Your task to perform on an android device: turn on notifications settings in the gmail app Image 0: 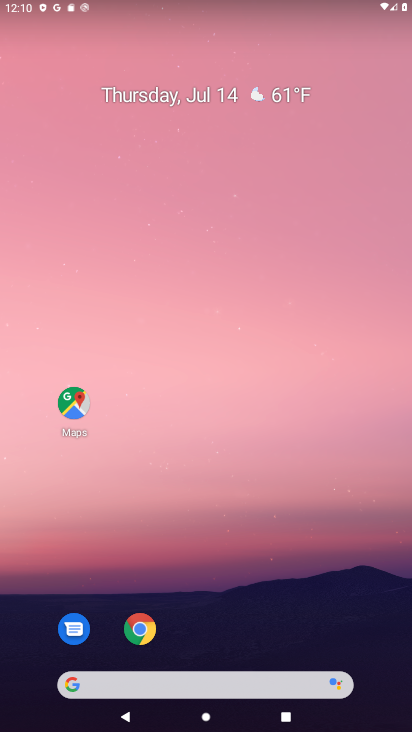
Step 0: drag from (204, 652) to (175, 160)
Your task to perform on an android device: turn on notifications settings in the gmail app Image 1: 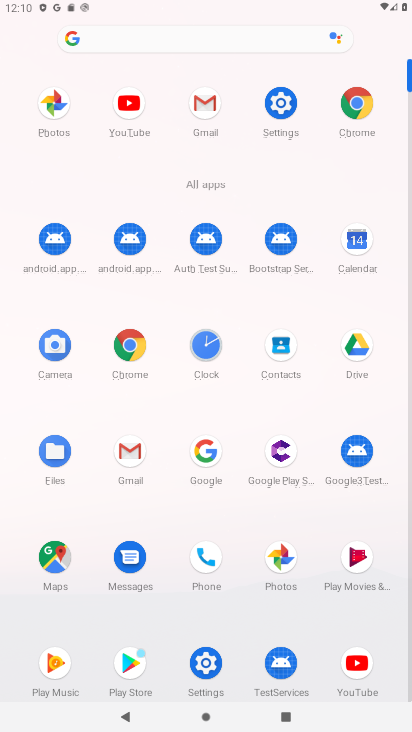
Step 1: click (278, 109)
Your task to perform on an android device: turn on notifications settings in the gmail app Image 2: 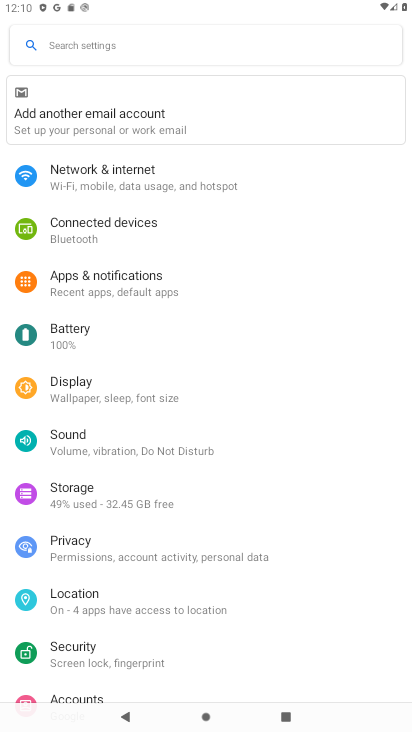
Step 2: click (134, 278)
Your task to perform on an android device: turn on notifications settings in the gmail app Image 3: 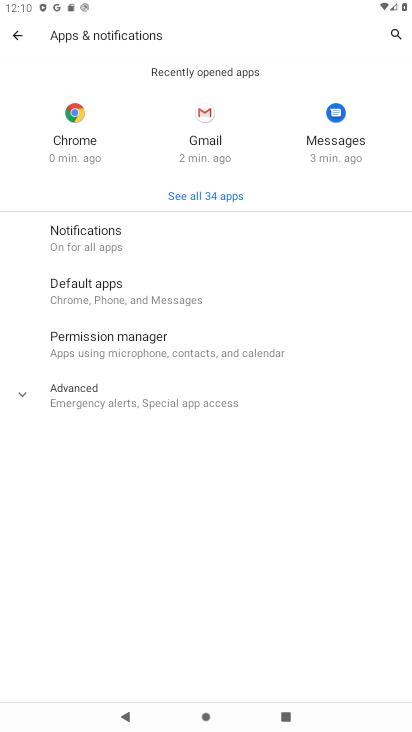
Step 3: click (203, 136)
Your task to perform on an android device: turn on notifications settings in the gmail app Image 4: 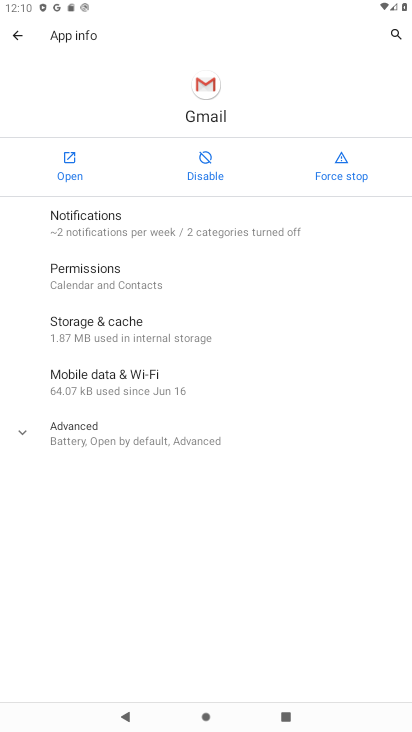
Step 4: click (83, 215)
Your task to perform on an android device: turn on notifications settings in the gmail app Image 5: 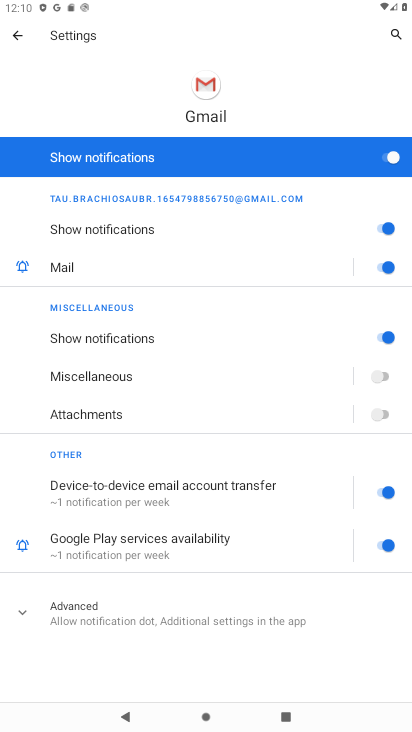
Step 5: task complete